Your task to perform on an android device: turn on showing notifications on the lock screen Image 0: 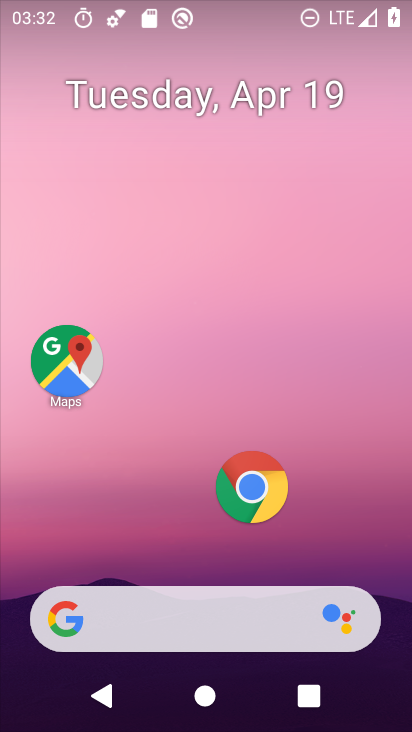
Step 0: drag from (179, 566) to (252, 64)
Your task to perform on an android device: turn on showing notifications on the lock screen Image 1: 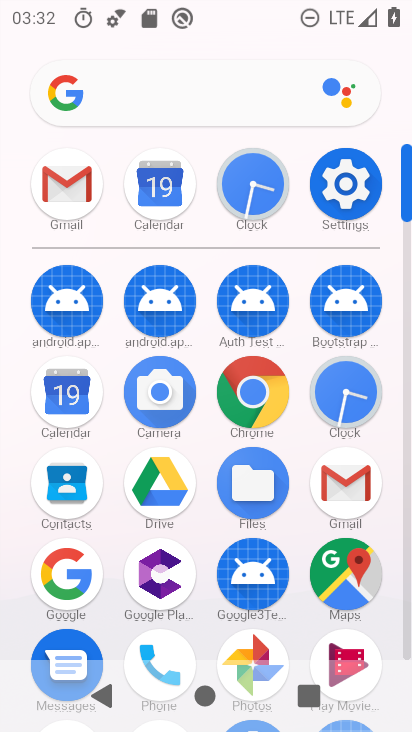
Step 1: click (344, 190)
Your task to perform on an android device: turn on showing notifications on the lock screen Image 2: 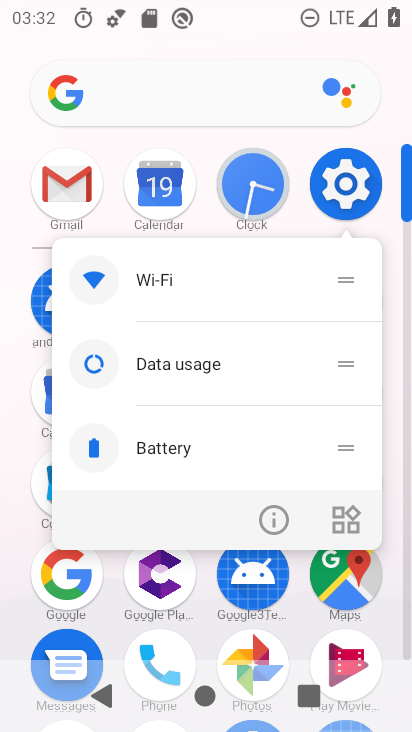
Step 2: click (348, 178)
Your task to perform on an android device: turn on showing notifications on the lock screen Image 3: 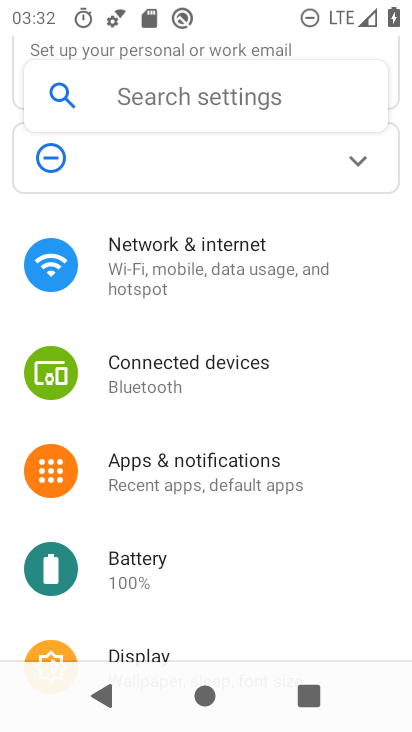
Step 3: click (166, 469)
Your task to perform on an android device: turn on showing notifications on the lock screen Image 4: 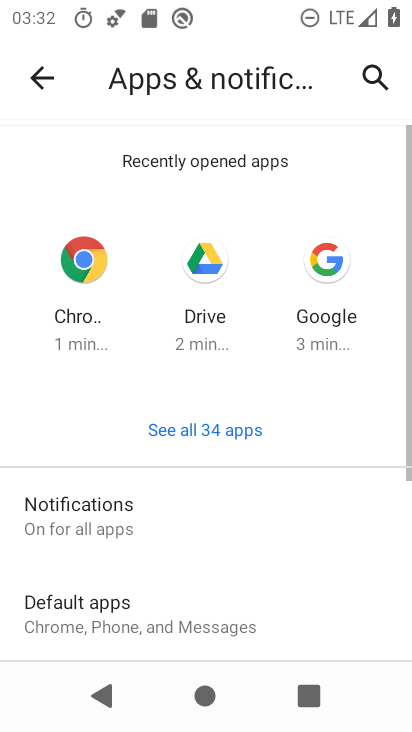
Step 4: drag from (136, 600) to (278, 87)
Your task to perform on an android device: turn on showing notifications on the lock screen Image 5: 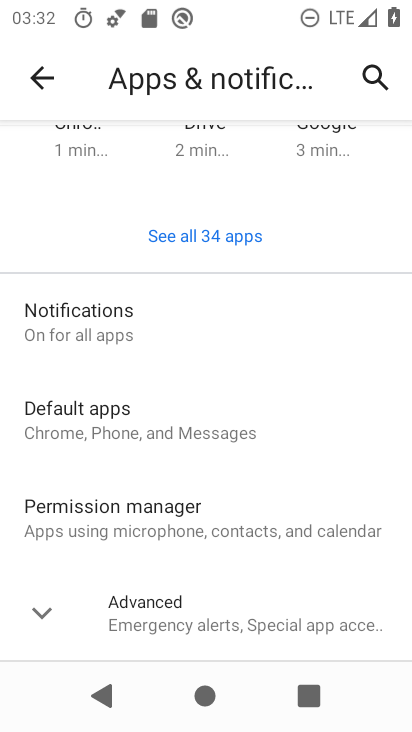
Step 5: click (94, 306)
Your task to perform on an android device: turn on showing notifications on the lock screen Image 6: 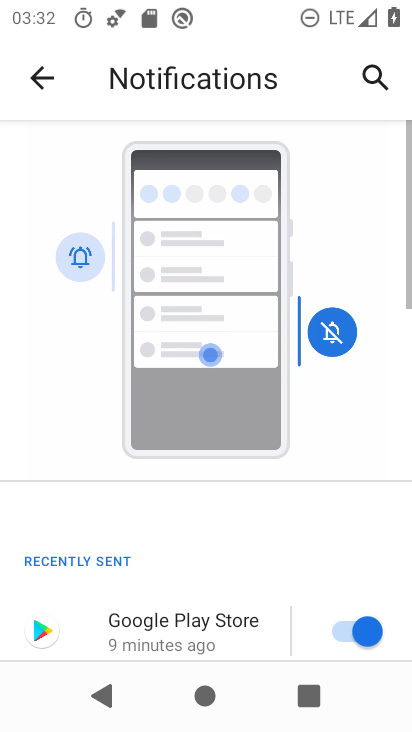
Step 6: drag from (205, 601) to (287, 51)
Your task to perform on an android device: turn on showing notifications on the lock screen Image 7: 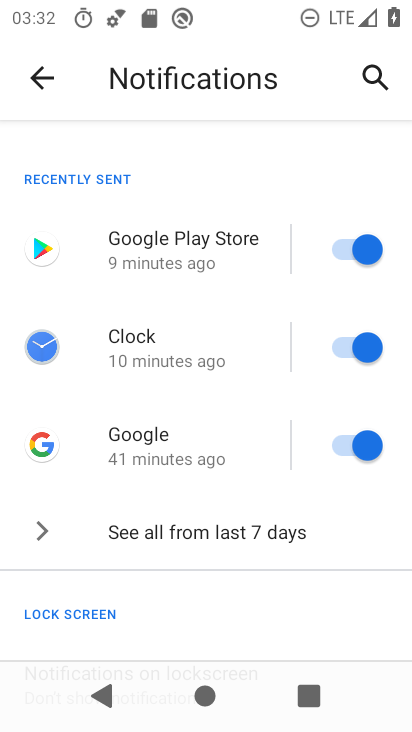
Step 7: drag from (175, 605) to (226, 134)
Your task to perform on an android device: turn on showing notifications on the lock screen Image 8: 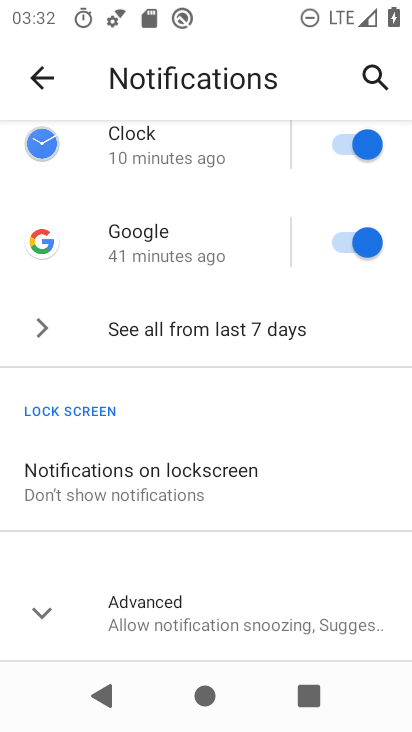
Step 8: click (122, 480)
Your task to perform on an android device: turn on showing notifications on the lock screen Image 9: 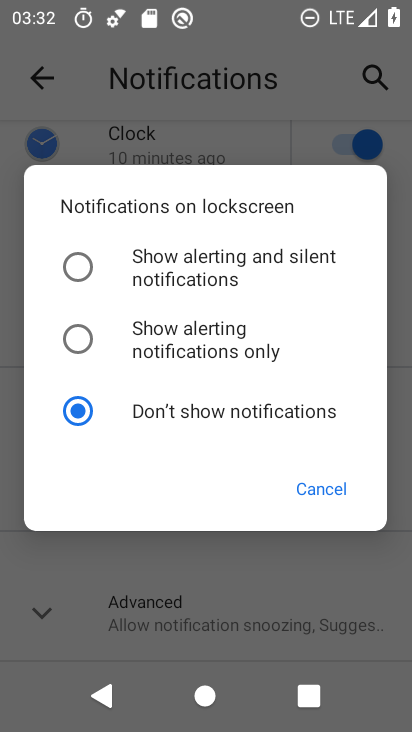
Step 9: click (74, 270)
Your task to perform on an android device: turn on showing notifications on the lock screen Image 10: 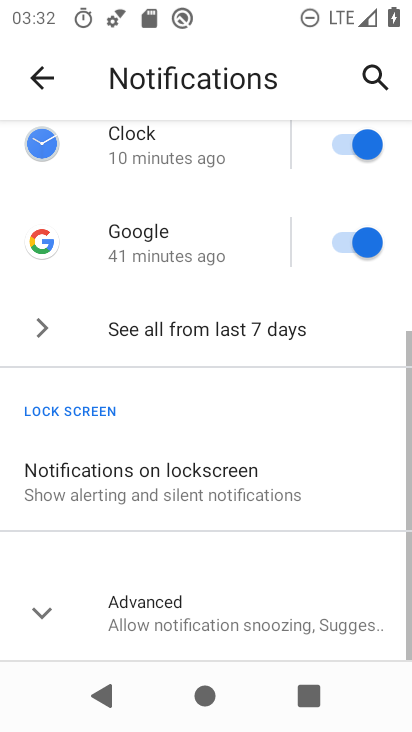
Step 10: task complete